Your task to perform on an android device: Open ESPN.com Image 0: 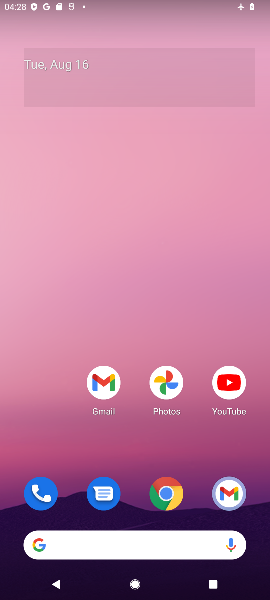
Step 0: press home button
Your task to perform on an android device: Open ESPN.com Image 1: 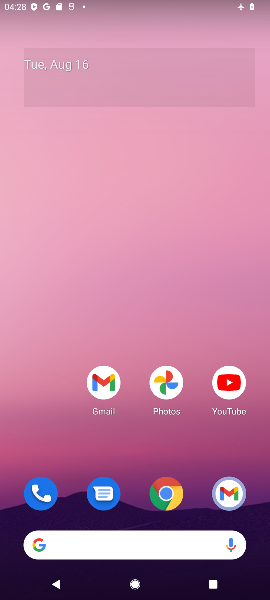
Step 1: drag from (66, 504) to (99, 76)
Your task to perform on an android device: Open ESPN.com Image 2: 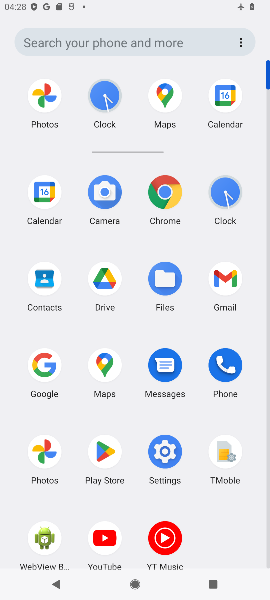
Step 2: click (169, 196)
Your task to perform on an android device: Open ESPN.com Image 3: 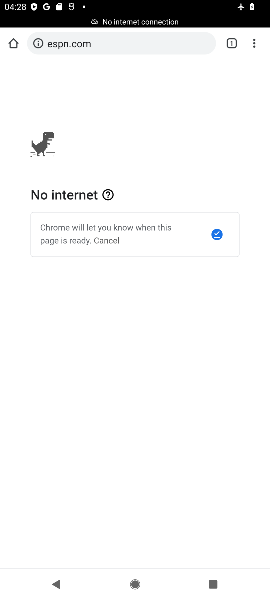
Step 3: click (115, 38)
Your task to perform on an android device: Open ESPN.com Image 4: 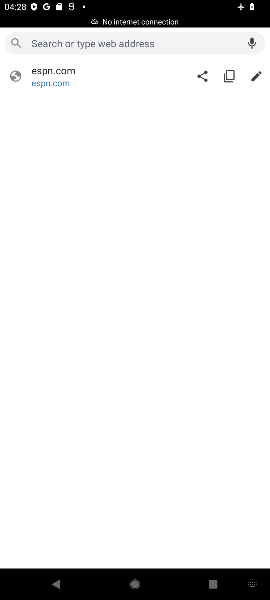
Step 4: type "espn.com"
Your task to perform on an android device: Open ESPN.com Image 5: 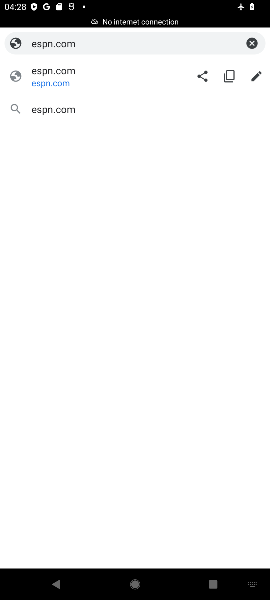
Step 5: click (74, 69)
Your task to perform on an android device: Open ESPN.com Image 6: 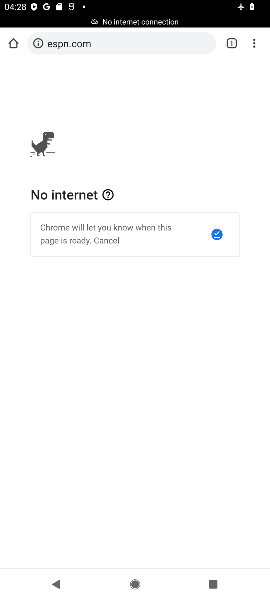
Step 6: press home button
Your task to perform on an android device: Open ESPN.com Image 7: 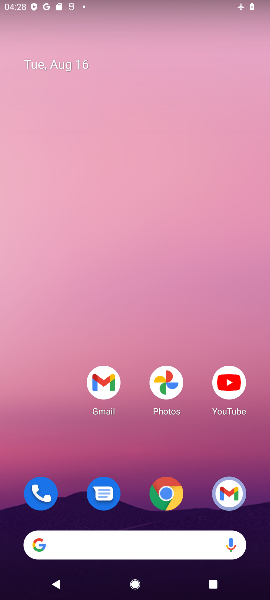
Step 7: drag from (71, 432) to (86, 63)
Your task to perform on an android device: Open ESPN.com Image 8: 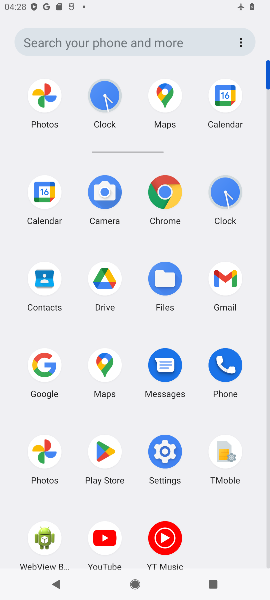
Step 8: click (171, 454)
Your task to perform on an android device: Open ESPN.com Image 9: 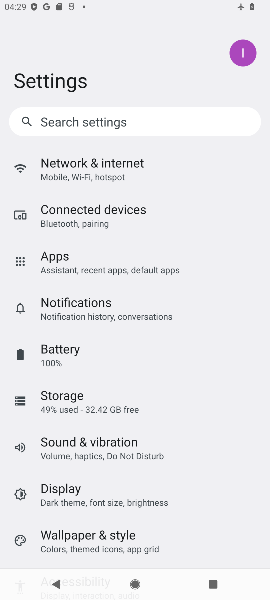
Step 9: click (139, 158)
Your task to perform on an android device: Open ESPN.com Image 10: 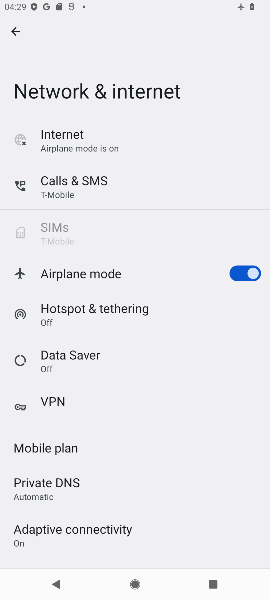
Step 10: click (231, 269)
Your task to perform on an android device: Open ESPN.com Image 11: 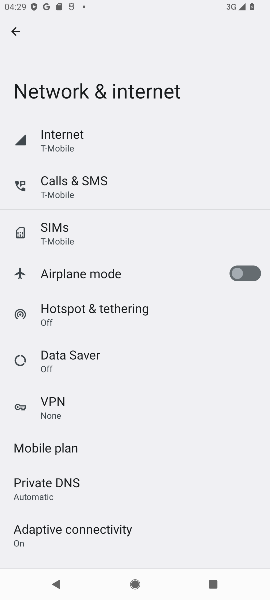
Step 11: task complete